Your task to perform on an android device: open a bookmark in the chrome app Image 0: 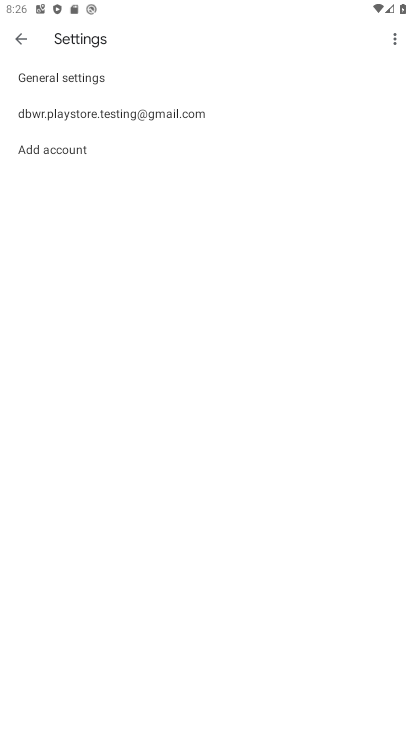
Step 0: press home button
Your task to perform on an android device: open a bookmark in the chrome app Image 1: 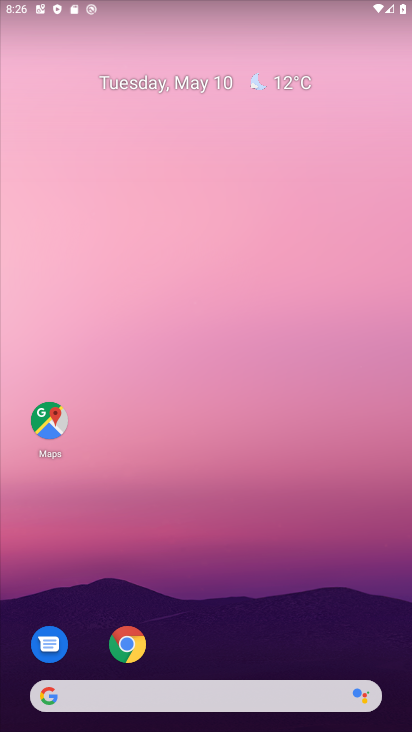
Step 1: click (129, 643)
Your task to perform on an android device: open a bookmark in the chrome app Image 2: 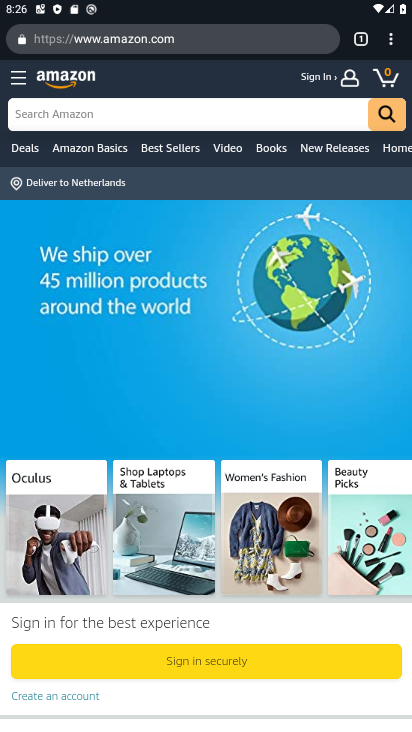
Step 2: click (392, 45)
Your task to perform on an android device: open a bookmark in the chrome app Image 3: 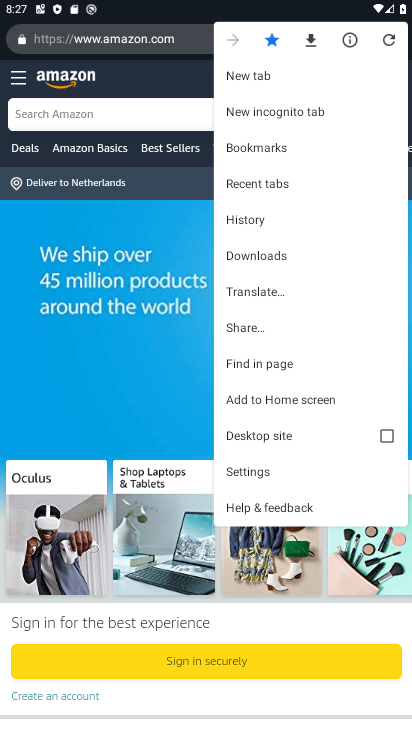
Step 3: click (259, 143)
Your task to perform on an android device: open a bookmark in the chrome app Image 4: 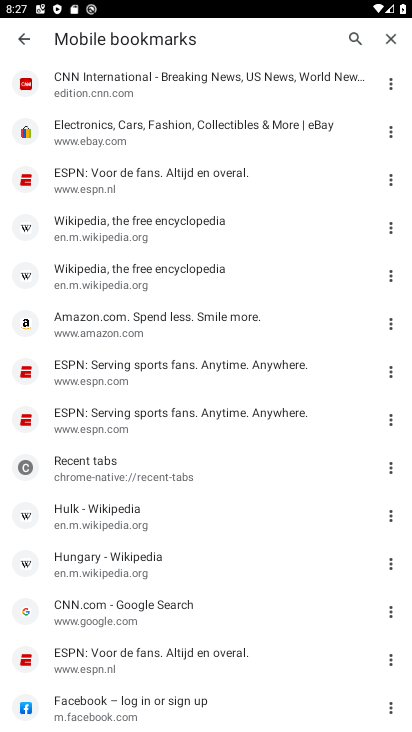
Step 4: task complete